Your task to perform on an android device: read, delete, or share a saved page in the chrome app Image 0: 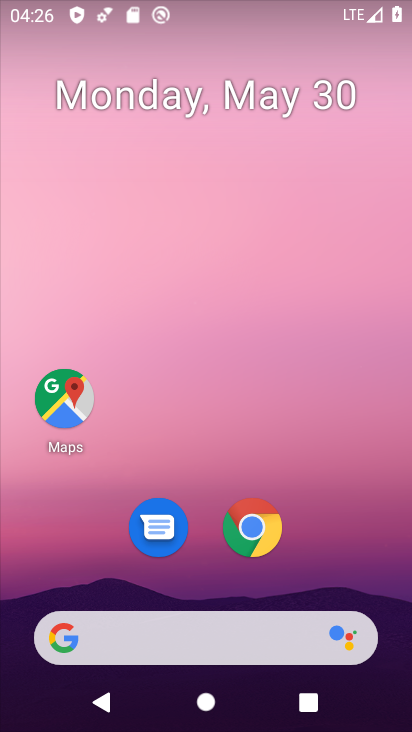
Step 0: click (248, 524)
Your task to perform on an android device: read, delete, or share a saved page in the chrome app Image 1: 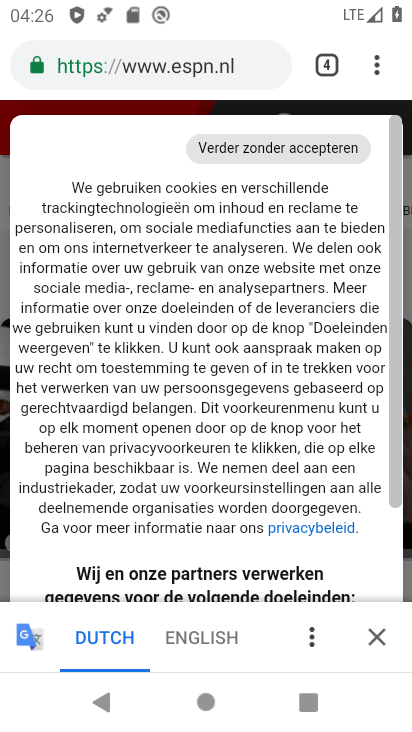
Step 1: click (378, 72)
Your task to perform on an android device: read, delete, or share a saved page in the chrome app Image 2: 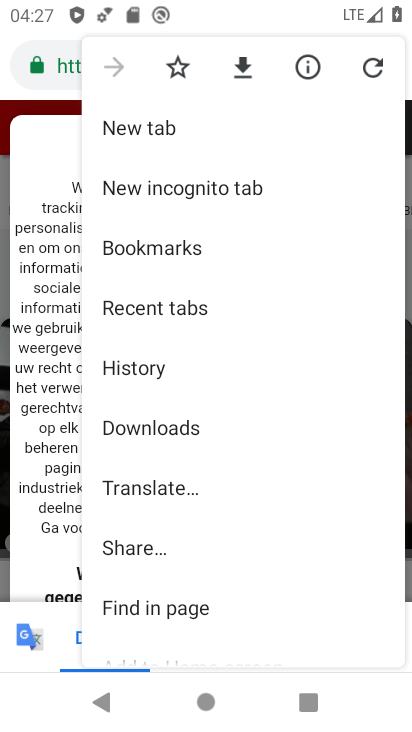
Step 2: click (147, 427)
Your task to perform on an android device: read, delete, or share a saved page in the chrome app Image 3: 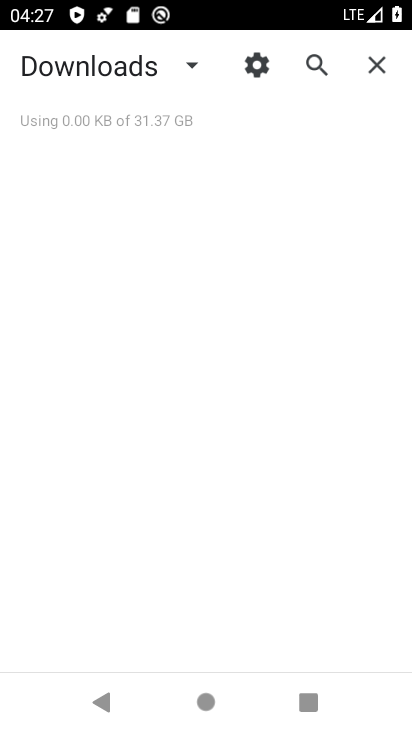
Step 3: click (191, 61)
Your task to perform on an android device: read, delete, or share a saved page in the chrome app Image 4: 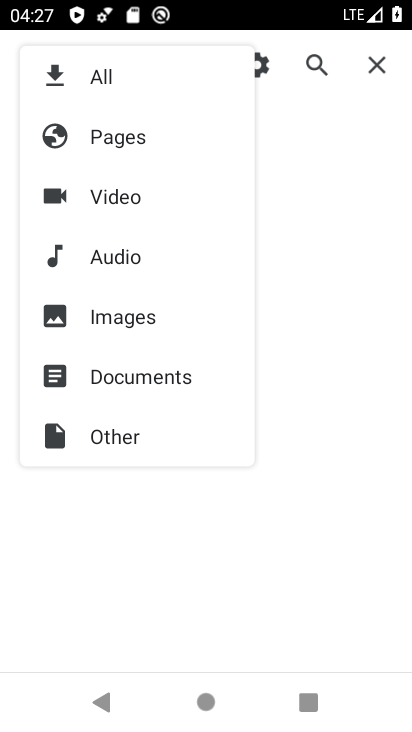
Step 4: click (115, 133)
Your task to perform on an android device: read, delete, or share a saved page in the chrome app Image 5: 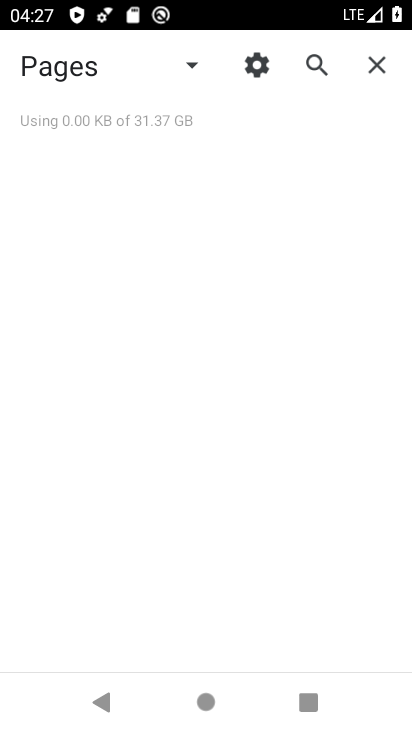
Step 5: task complete